Your task to perform on an android device: open app "Flipkart Online Shopping App" (install if not already installed) and go to login screen Image 0: 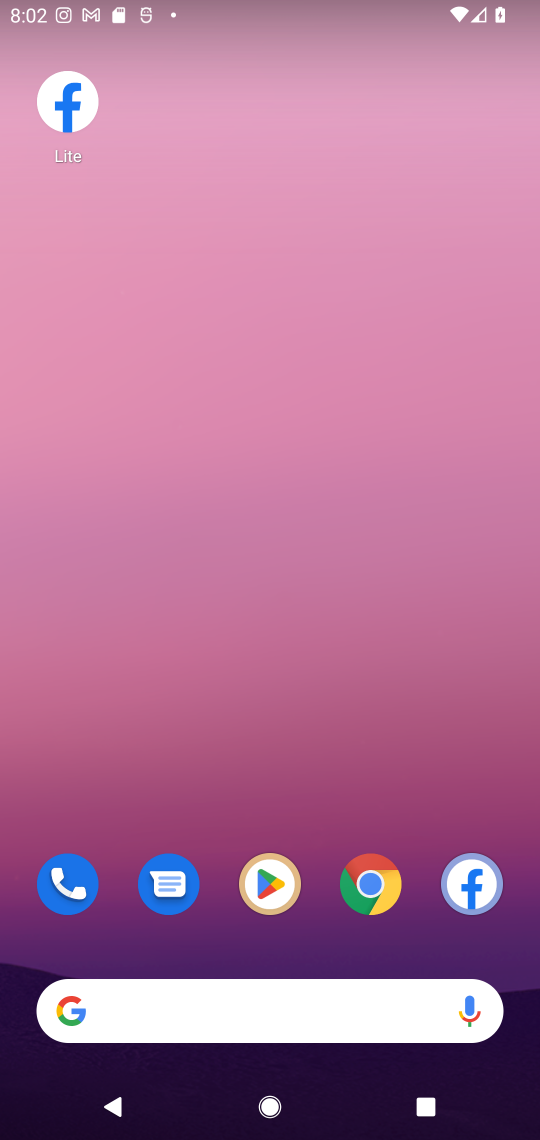
Step 0: drag from (173, 1019) to (268, 582)
Your task to perform on an android device: open app "Flipkart Online Shopping App" (install if not already installed) and go to login screen Image 1: 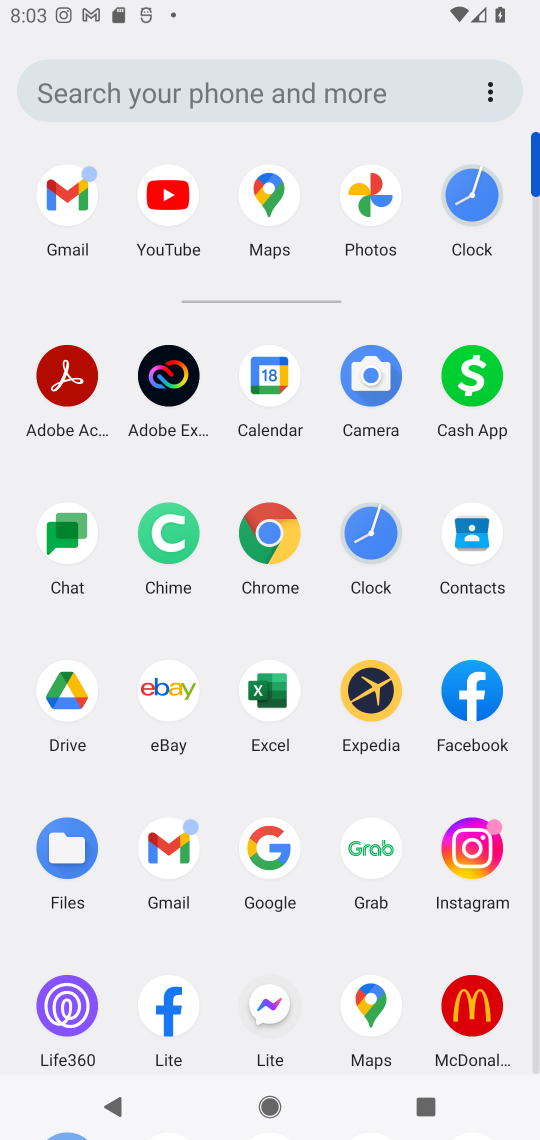
Step 1: drag from (225, 793) to (237, 244)
Your task to perform on an android device: open app "Flipkart Online Shopping App" (install if not already installed) and go to login screen Image 2: 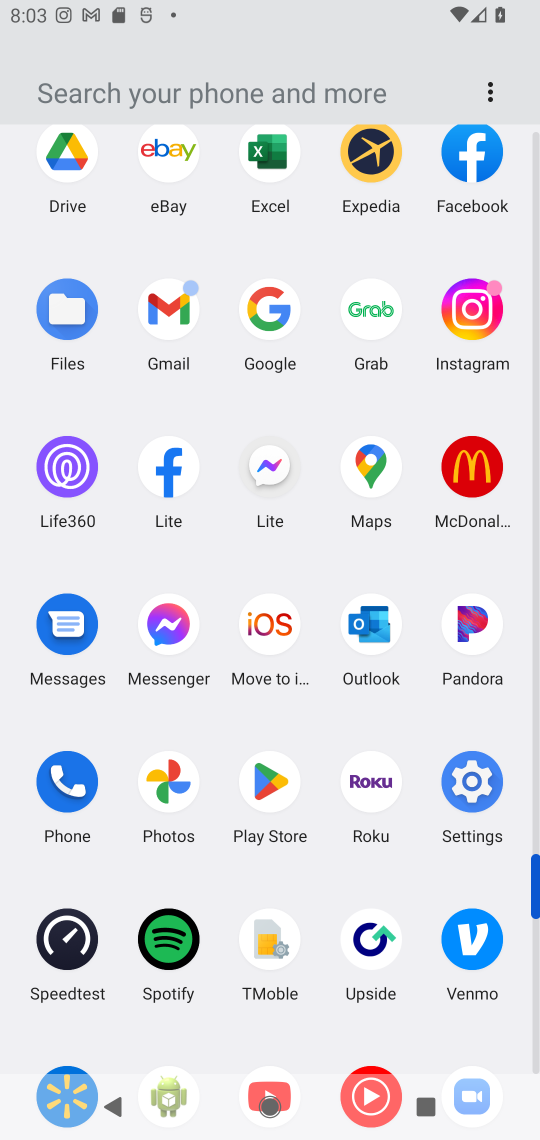
Step 2: click (276, 789)
Your task to perform on an android device: open app "Flipkart Online Shopping App" (install if not already installed) and go to login screen Image 3: 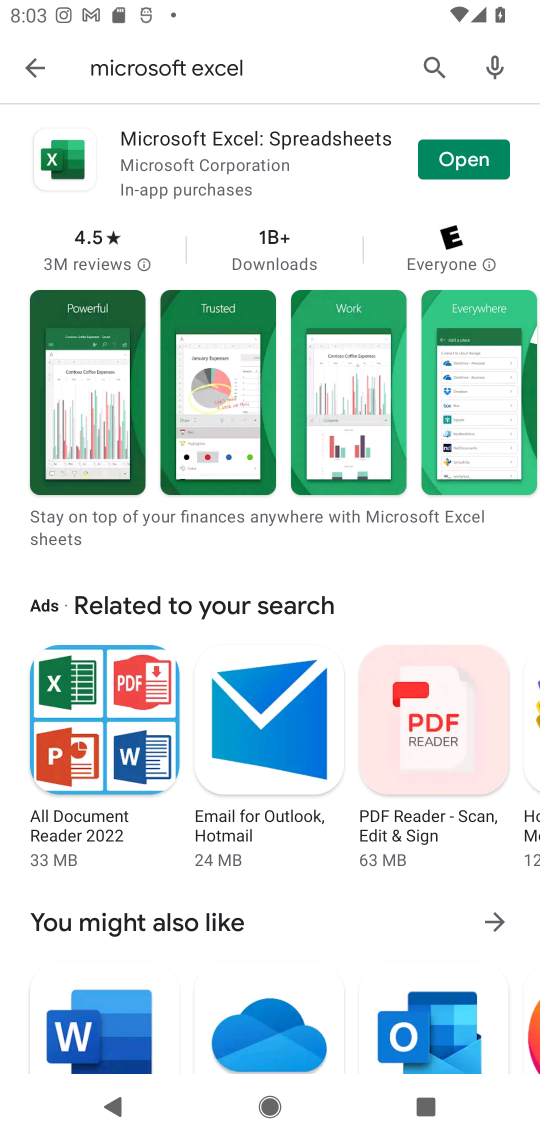
Step 3: press back button
Your task to perform on an android device: open app "Flipkart Online Shopping App" (install if not already installed) and go to login screen Image 4: 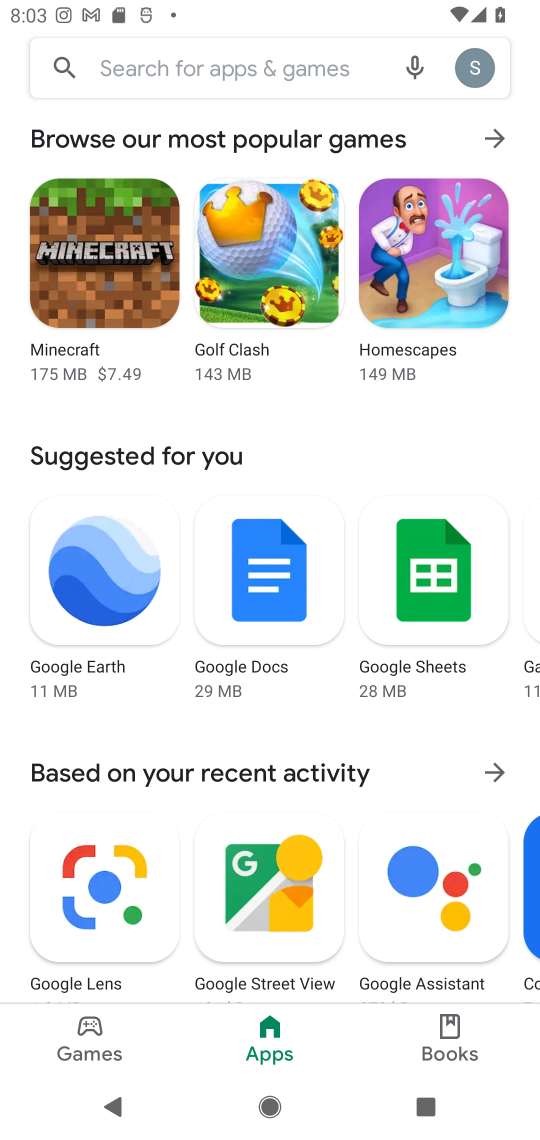
Step 4: click (260, 64)
Your task to perform on an android device: open app "Flipkart Online Shopping App" (install if not already installed) and go to login screen Image 5: 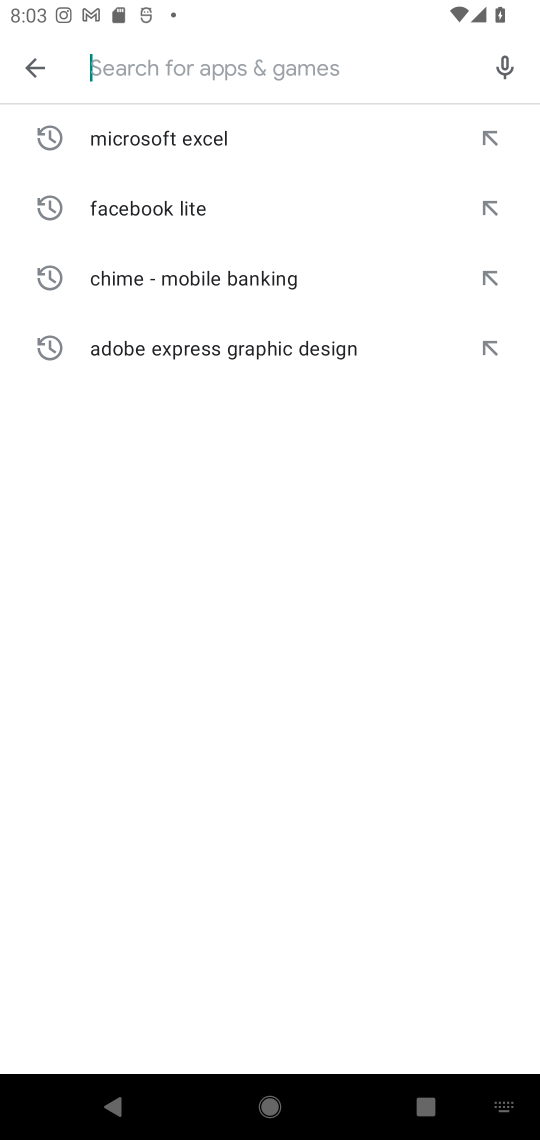
Step 5: type "Flipkart Online Shopping App"
Your task to perform on an android device: open app "Flipkart Online Shopping App" (install if not already installed) and go to login screen Image 6: 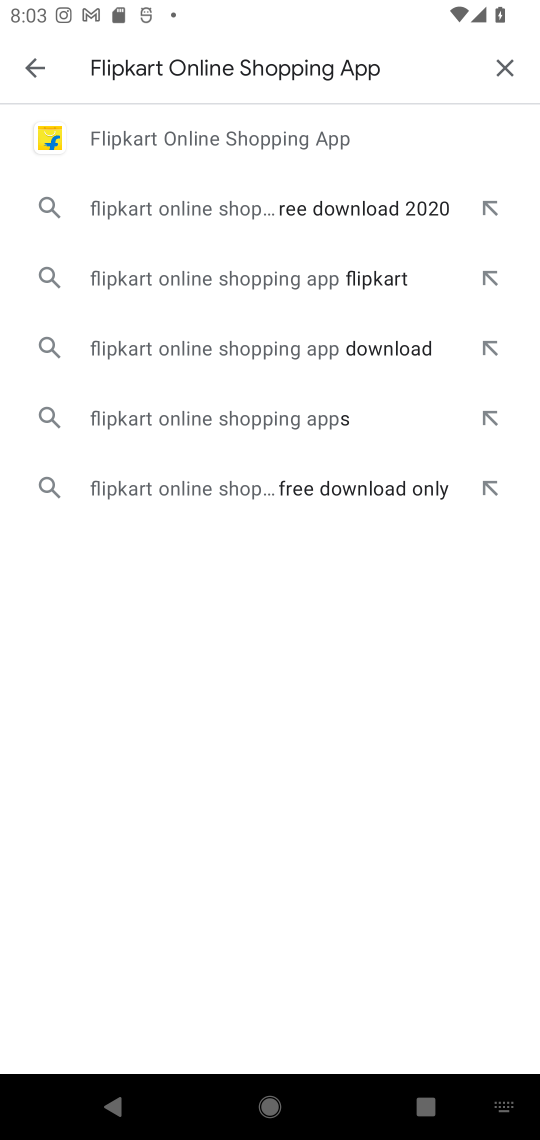
Step 6: click (309, 138)
Your task to perform on an android device: open app "Flipkart Online Shopping App" (install if not already installed) and go to login screen Image 7: 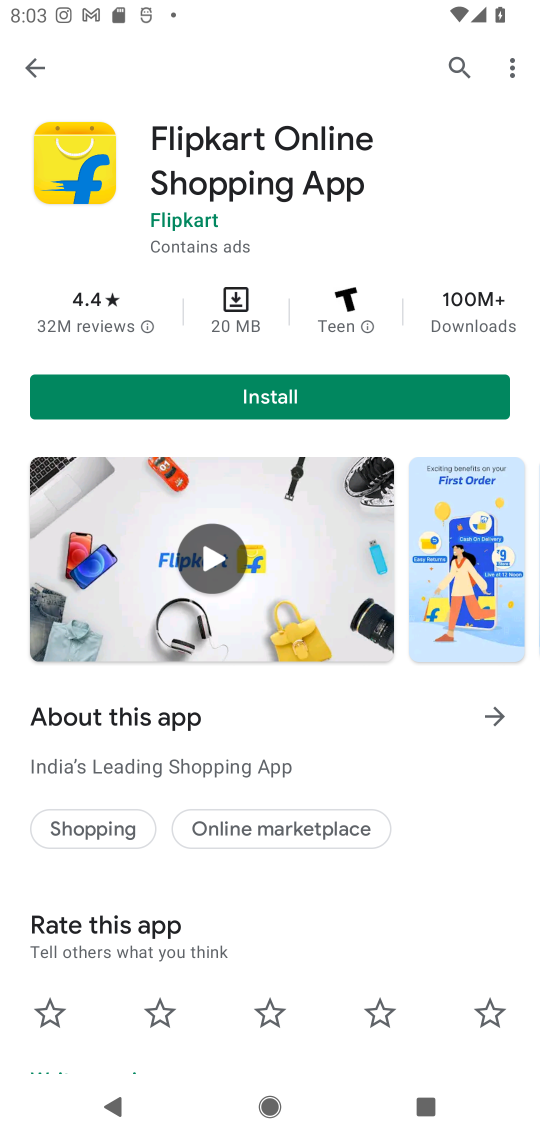
Step 7: click (259, 400)
Your task to perform on an android device: open app "Flipkart Online Shopping App" (install if not already installed) and go to login screen Image 8: 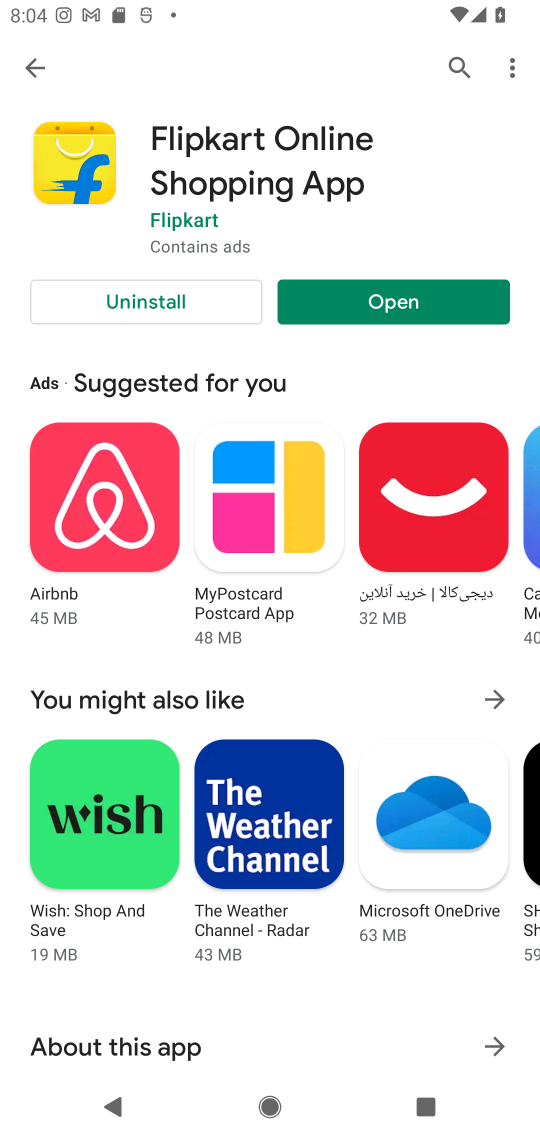
Step 8: click (390, 305)
Your task to perform on an android device: open app "Flipkart Online Shopping App" (install if not already installed) and go to login screen Image 9: 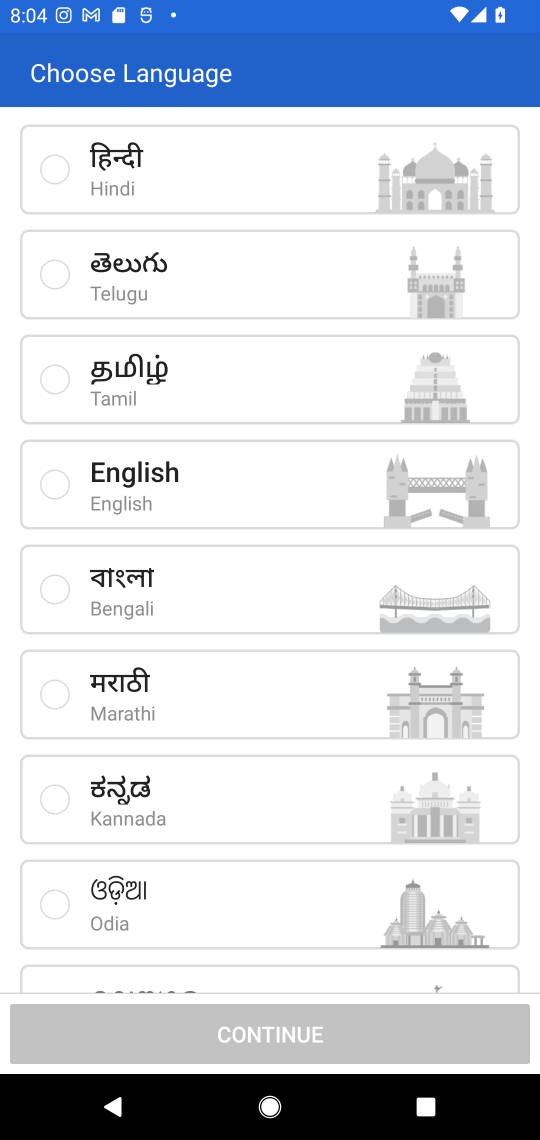
Step 9: click (54, 490)
Your task to perform on an android device: open app "Flipkart Online Shopping App" (install if not already installed) and go to login screen Image 10: 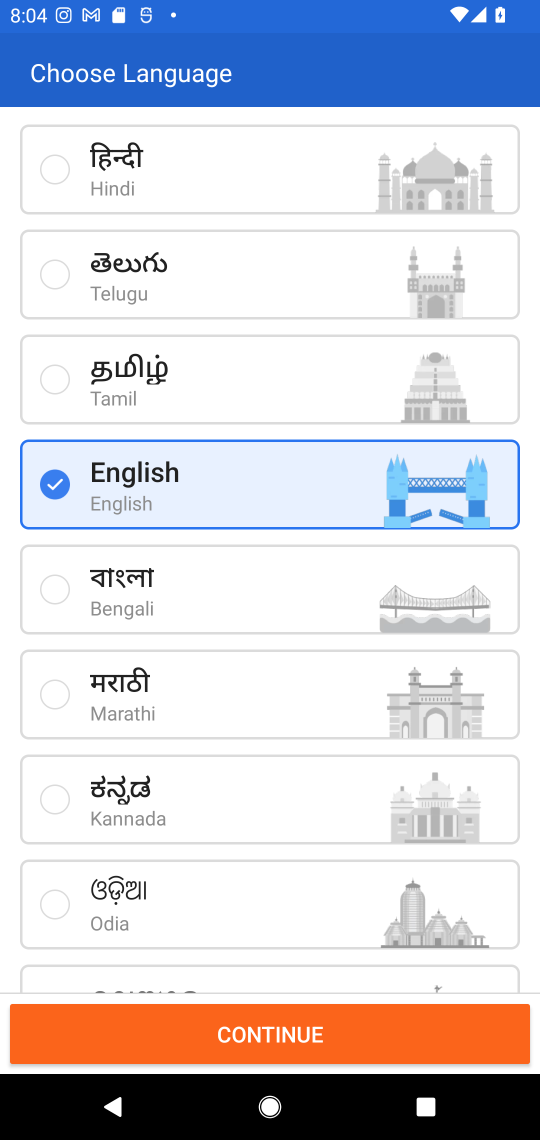
Step 10: click (257, 1035)
Your task to perform on an android device: open app "Flipkart Online Shopping App" (install if not already installed) and go to login screen Image 11: 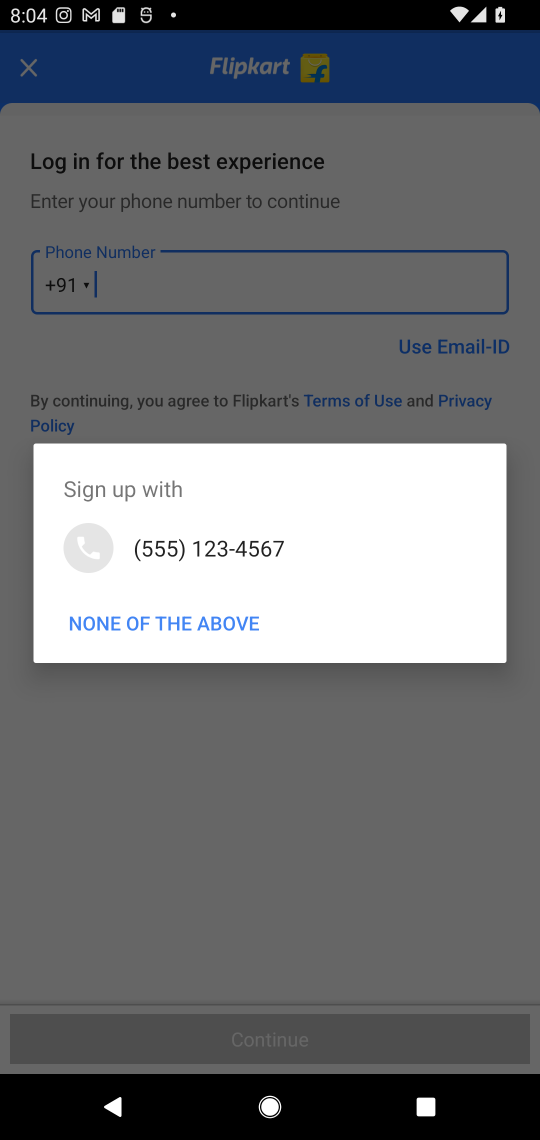
Step 11: click (251, 800)
Your task to perform on an android device: open app "Flipkart Online Shopping App" (install if not already installed) and go to login screen Image 12: 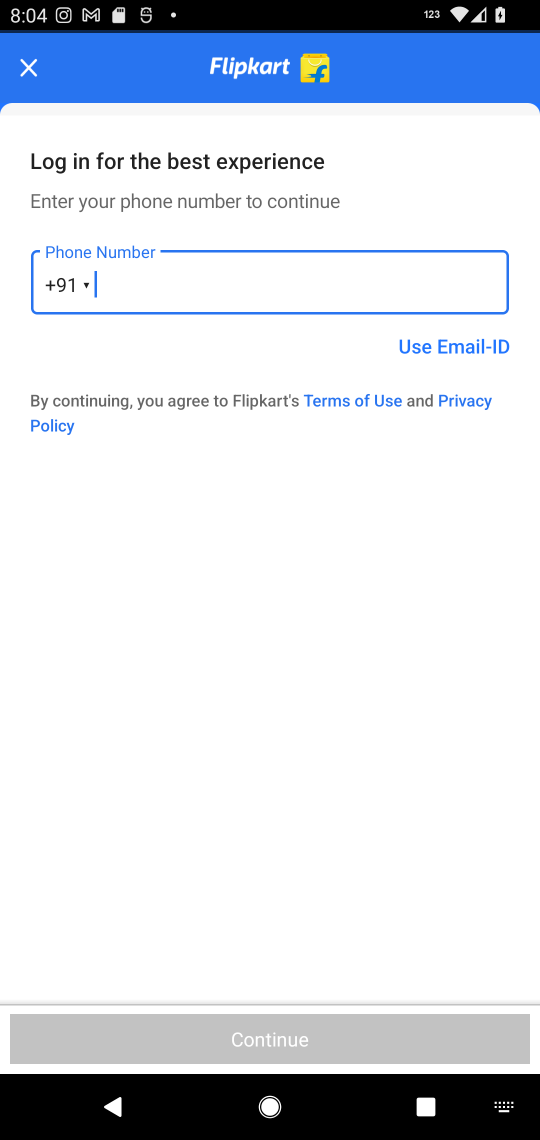
Step 12: click (473, 345)
Your task to perform on an android device: open app "Flipkart Online Shopping App" (install if not already installed) and go to login screen Image 13: 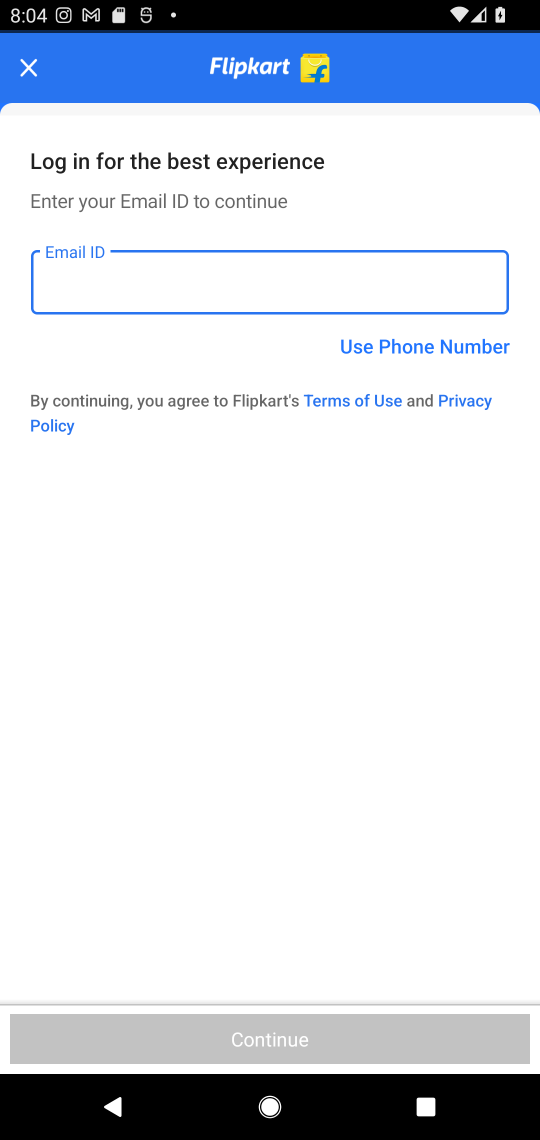
Step 13: task complete